Your task to perform on an android device: open app "Yahoo Mail" (install if not already installed) Image 0: 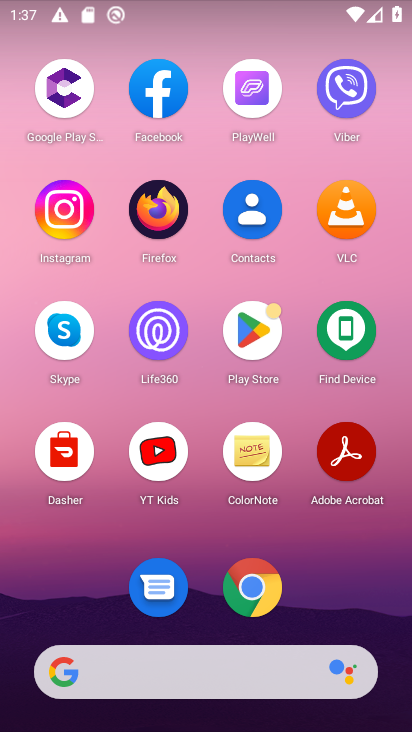
Step 0: press home button
Your task to perform on an android device: open app "Yahoo Mail" (install if not already installed) Image 1: 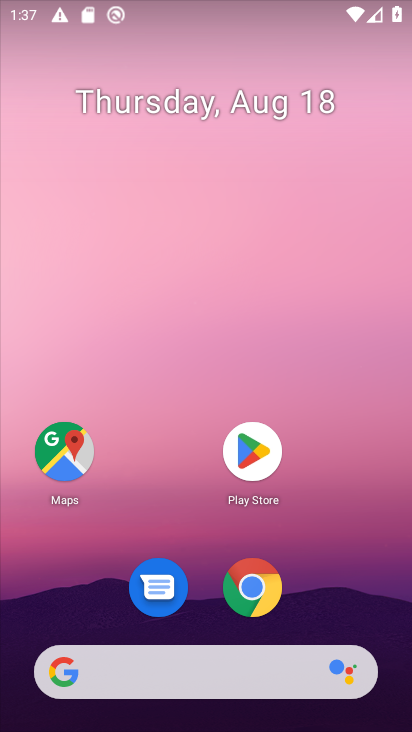
Step 1: click (250, 446)
Your task to perform on an android device: open app "Yahoo Mail" (install if not already installed) Image 2: 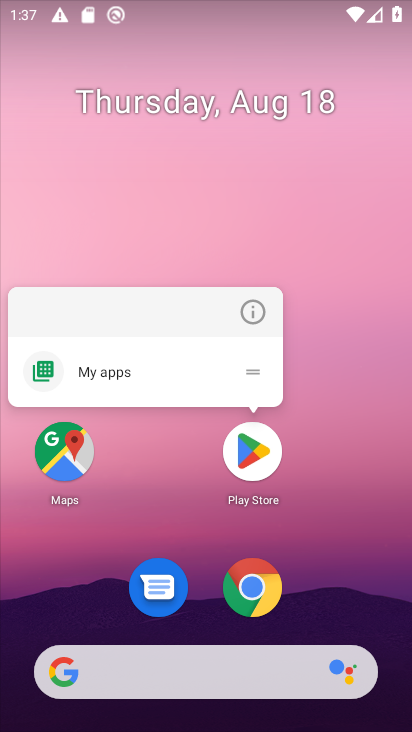
Step 2: click (249, 455)
Your task to perform on an android device: open app "Yahoo Mail" (install if not already installed) Image 3: 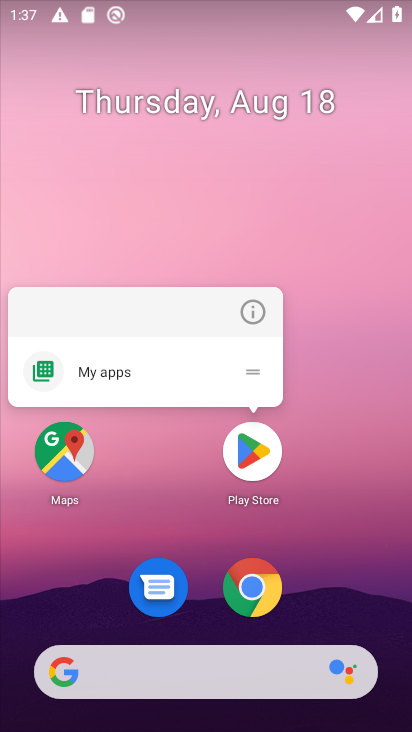
Step 3: click (249, 455)
Your task to perform on an android device: open app "Yahoo Mail" (install if not already installed) Image 4: 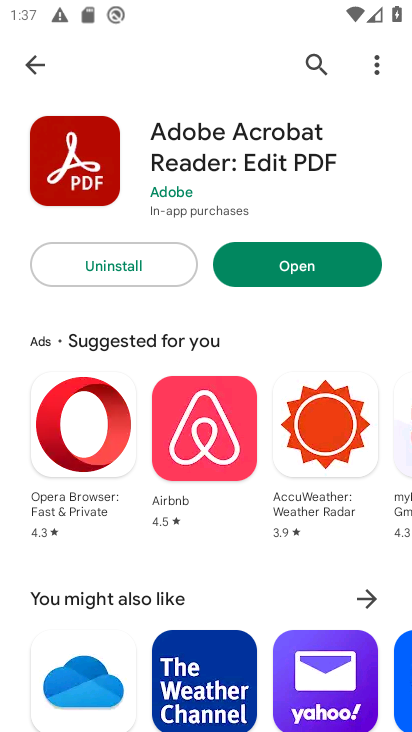
Step 4: click (314, 60)
Your task to perform on an android device: open app "Yahoo Mail" (install if not already installed) Image 5: 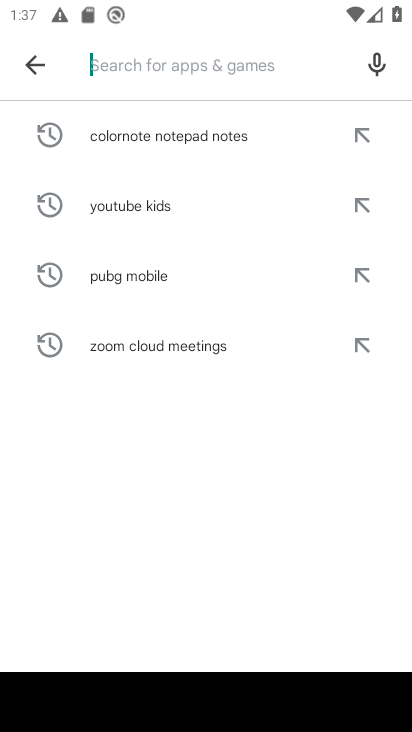
Step 5: type "Yahoo Mail"
Your task to perform on an android device: open app "Yahoo Mail" (install if not already installed) Image 6: 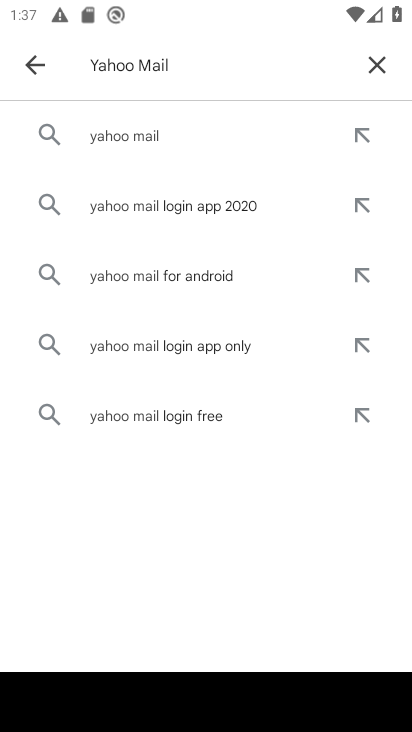
Step 6: click (119, 127)
Your task to perform on an android device: open app "Yahoo Mail" (install if not already installed) Image 7: 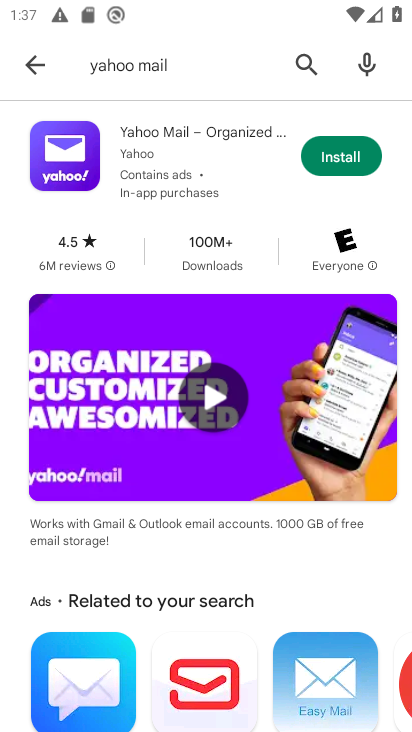
Step 7: click (337, 157)
Your task to perform on an android device: open app "Yahoo Mail" (install if not already installed) Image 8: 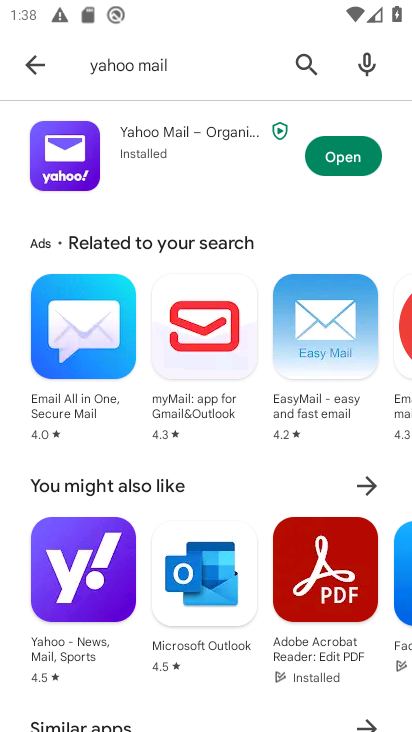
Step 8: click (350, 164)
Your task to perform on an android device: open app "Yahoo Mail" (install if not already installed) Image 9: 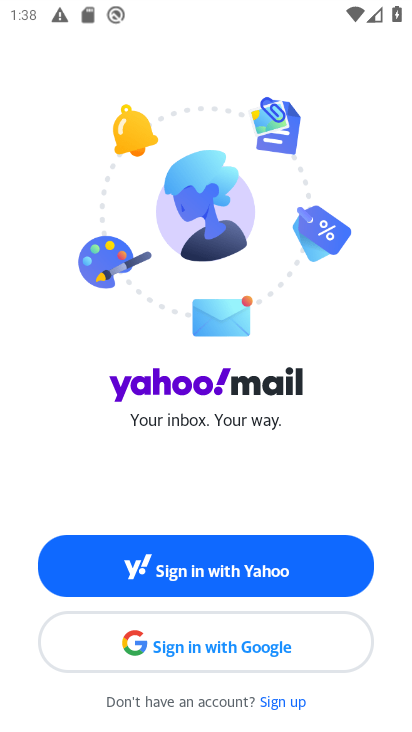
Step 9: task complete